Your task to perform on an android device: turn on data saver in the chrome app Image 0: 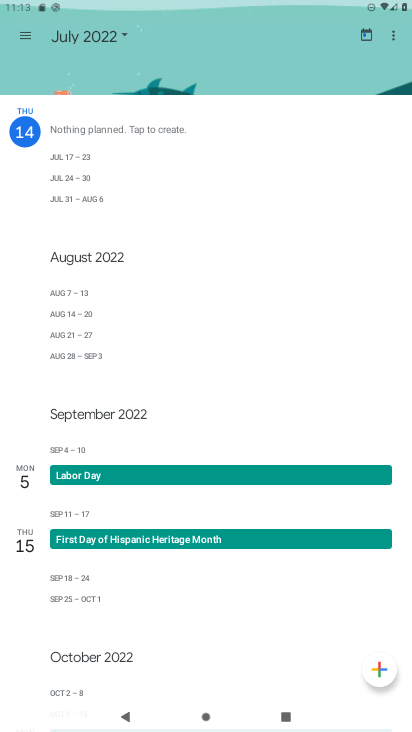
Step 0: press home button
Your task to perform on an android device: turn on data saver in the chrome app Image 1: 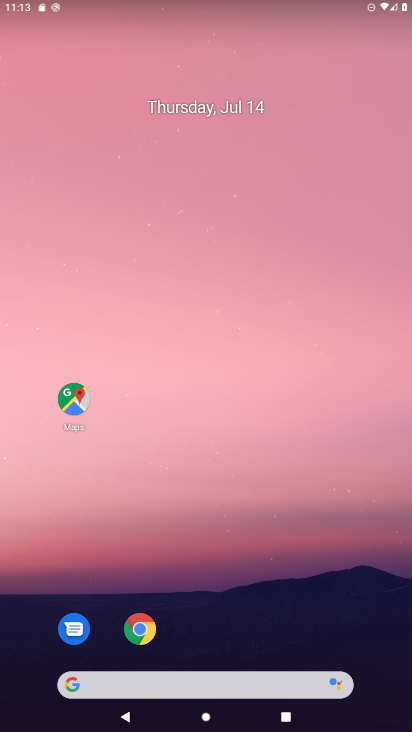
Step 1: drag from (217, 683) to (231, 41)
Your task to perform on an android device: turn on data saver in the chrome app Image 2: 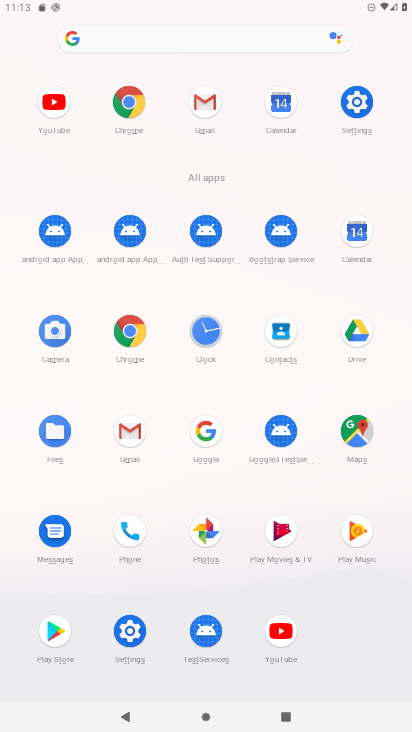
Step 2: click (126, 127)
Your task to perform on an android device: turn on data saver in the chrome app Image 3: 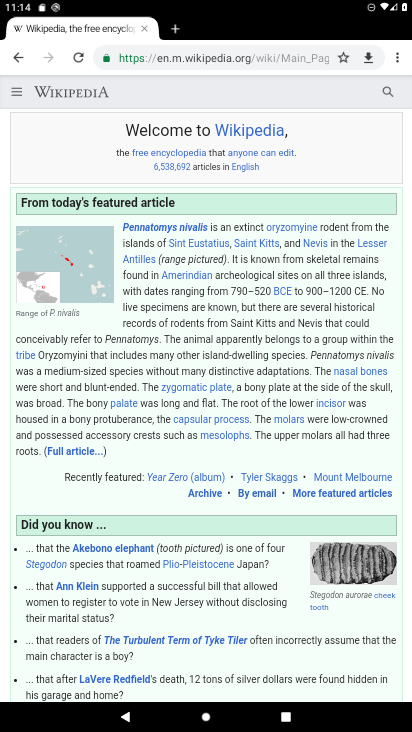
Step 3: click (398, 66)
Your task to perform on an android device: turn on data saver in the chrome app Image 4: 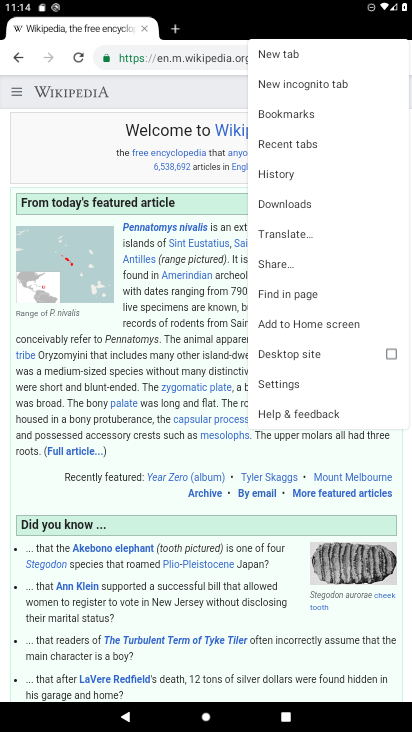
Step 4: click (295, 386)
Your task to perform on an android device: turn on data saver in the chrome app Image 5: 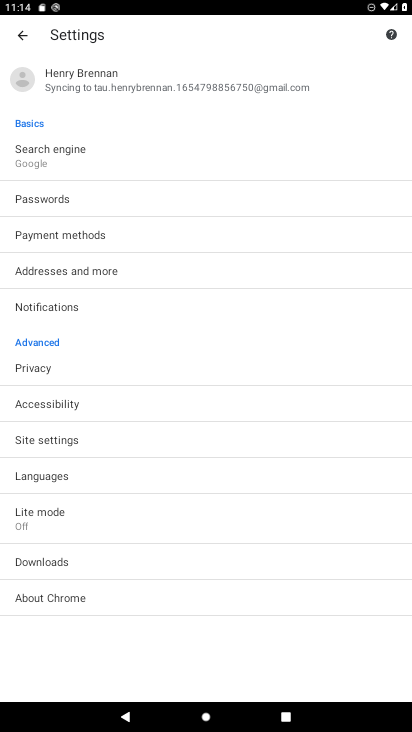
Step 5: click (73, 526)
Your task to perform on an android device: turn on data saver in the chrome app Image 6: 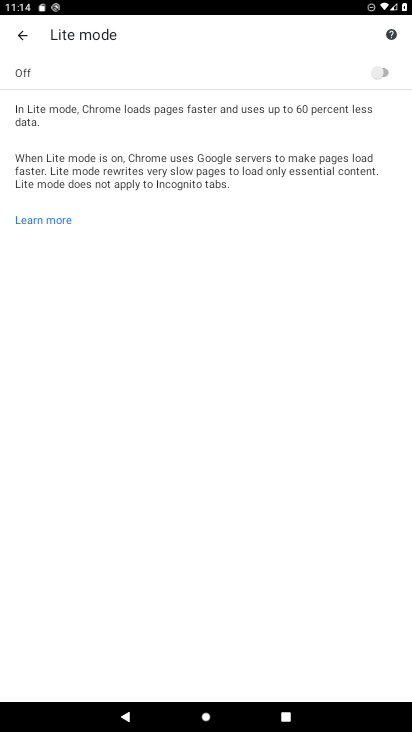
Step 6: click (388, 73)
Your task to perform on an android device: turn on data saver in the chrome app Image 7: 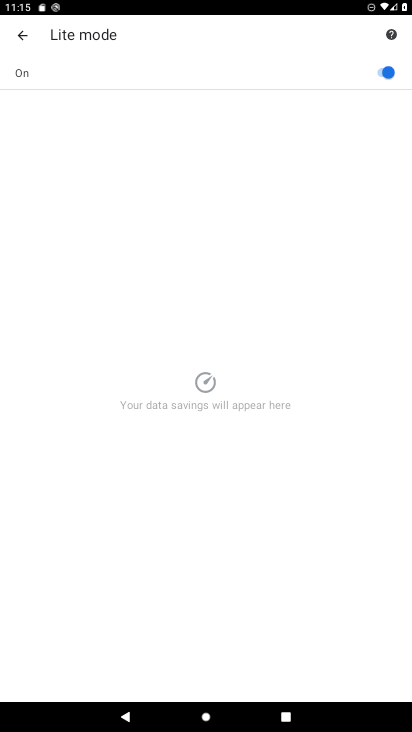
Step 7: task complete